Your task to perform on an android device: Show me recent news Image 0: 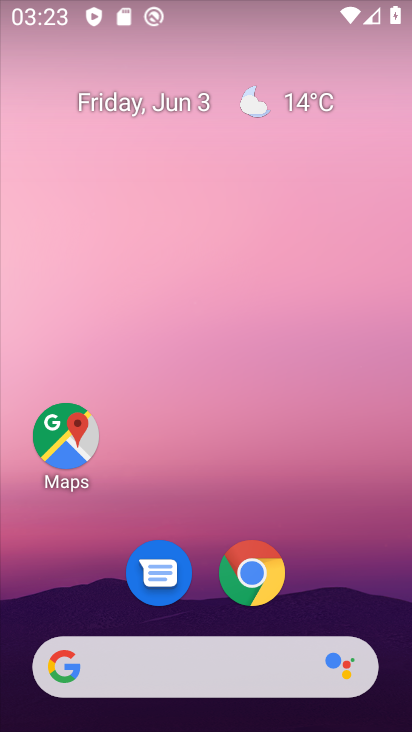
Step 0: drag from (298, 599) to (329, 4)
Your task to perform on an android device: Show me recent news Image 1: 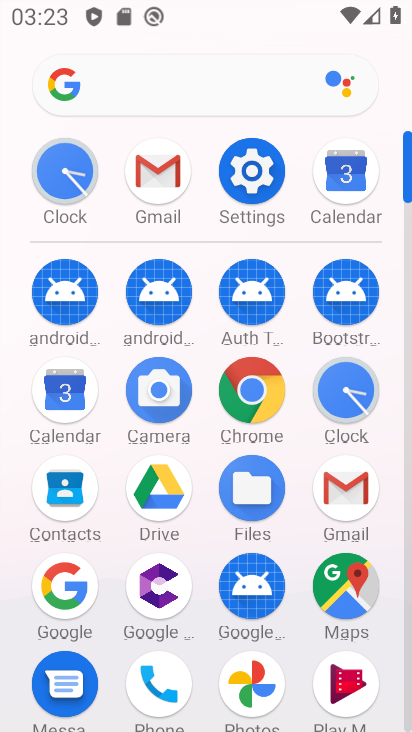
Step 1: click (265, 402)
Your task to perform on an android device: Show me recent news Image 2: 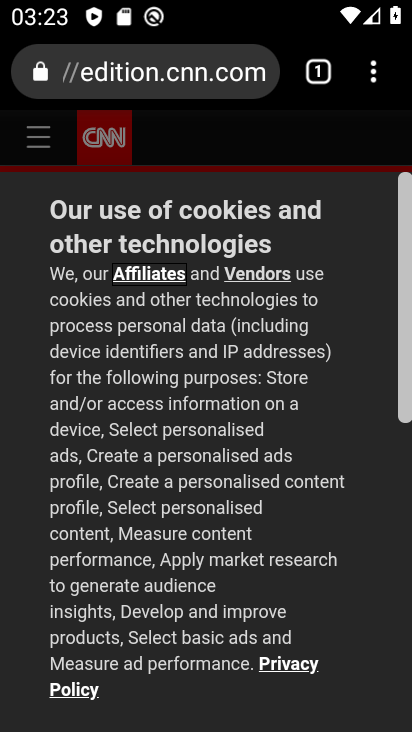
Step 2: click (217, 76)
Your task to perform on an android device: Show me recent news Image 3: 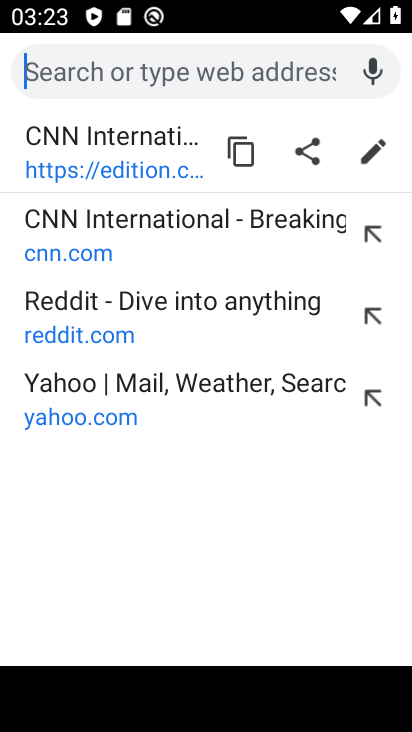
Step 3: type "recent news"
Your task to perform on an android device: Show me recent news Image 4: 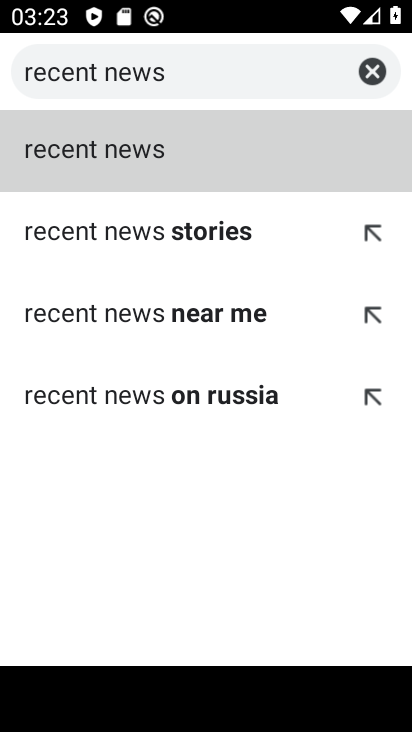
Step 4: click (249, 169)
Your task to perform on an android device: Show me recent news Image 5: 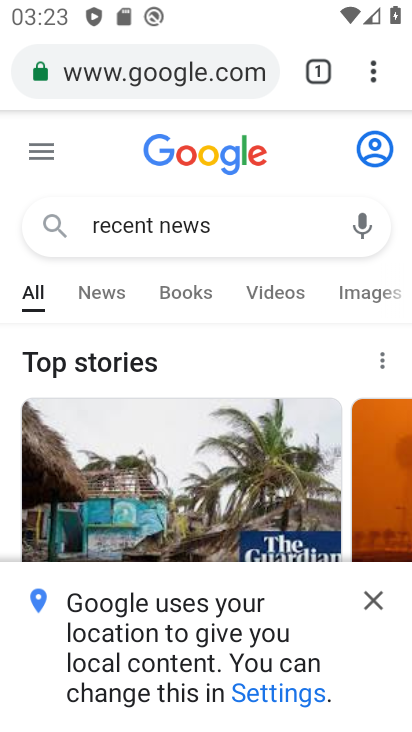
Step 5: task complete